Your task to perform on an android device: Go to ESPN.com Image 0: 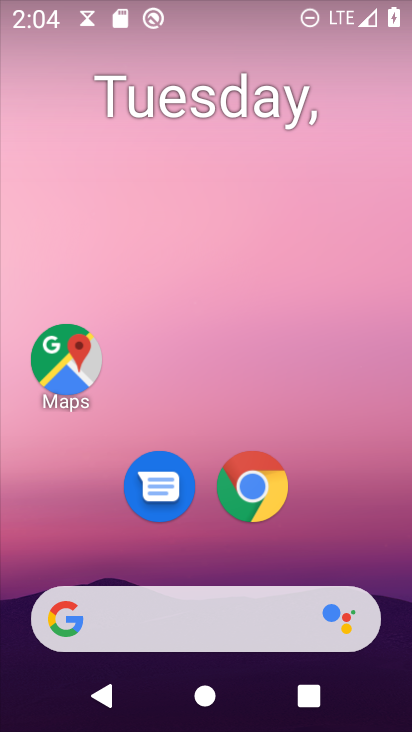
Step 0: drag from (226, 583) to (195, 224)
Your task to perform on an android device: Go to ESPN.com Image 1: 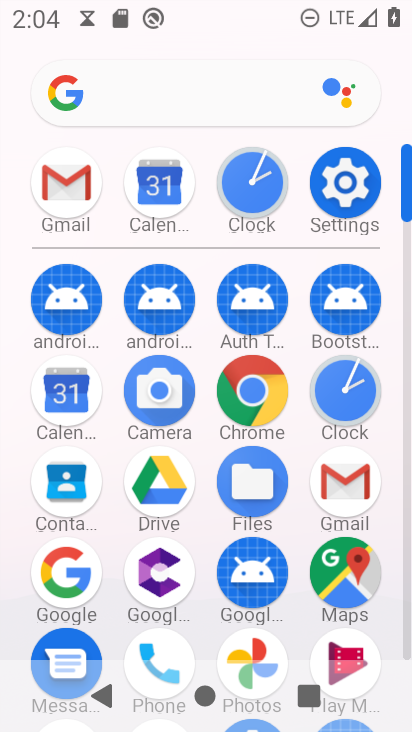
Step 1: click (237, 405)
Your task to perform on an android device: Go to ESPN.com Image 2: 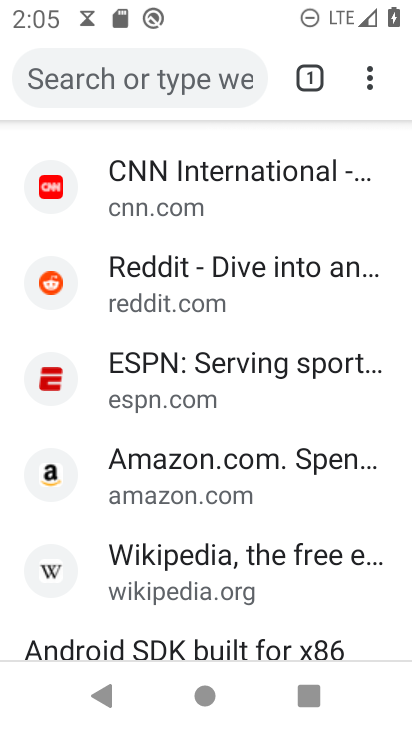
Step 2: click (221, 375)
Your task to perform on an android device: Go to ESPN.com Image 3: 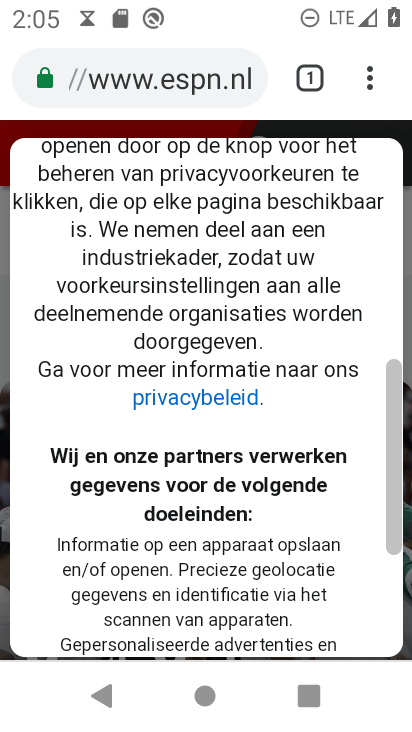
Step 3: task complete